Your task to perform on an android device: Open ESPN.com Image 0: 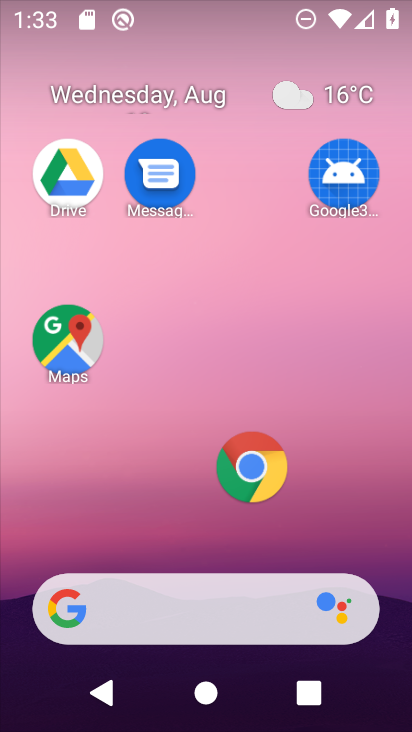
Step 0: click (199, 596)
Your task to perform on an android device: Open ESPN.com Image 1: 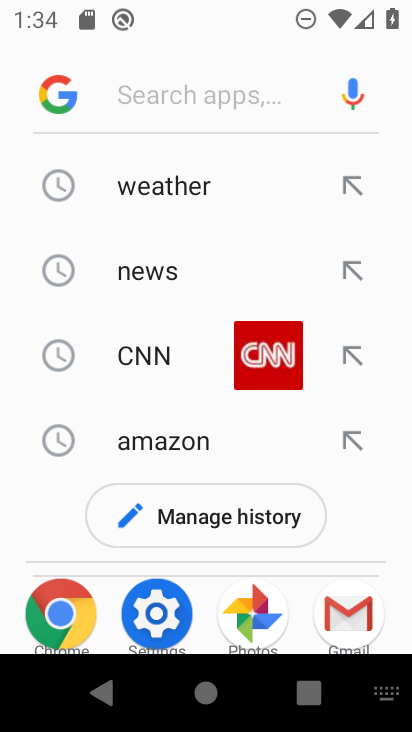
Step 1: click (81, 591)
Your task to perform on an android device: Open ESPN.com Image 2: 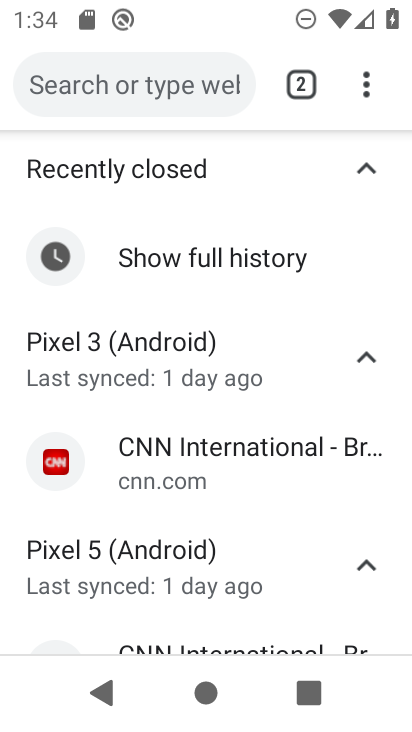
Step 2: drag from (108, 612) to (179, 302)
Your task to perform on an android device: Open ESPN.com Image 3: 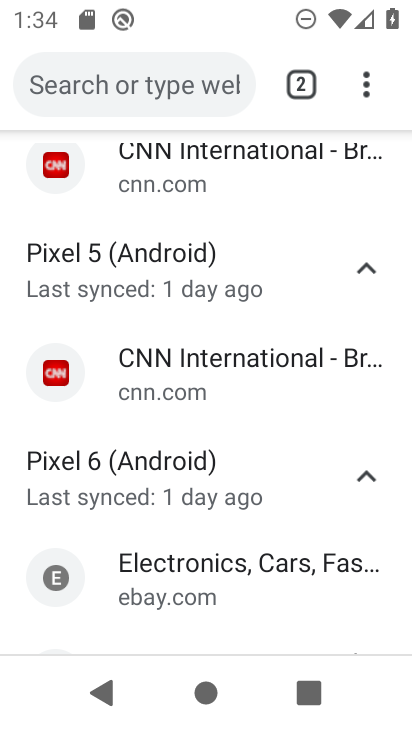
Step 3: click (182, 97)
Your task to perform on an android device: Open ESPN.com Image 4: 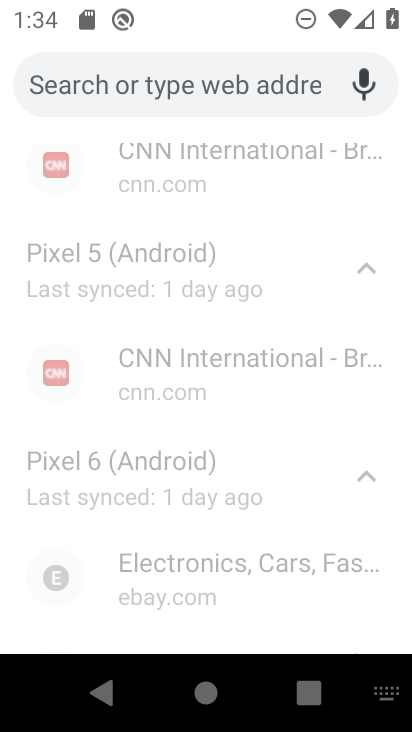
Step 4: type "espn"
Your task to perform on an android device: Open ESPN.com Image 5: 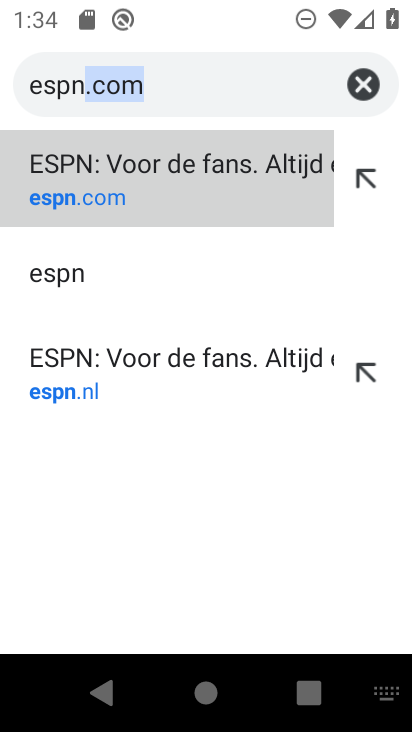
Step 5: click (148, 166)
Your task to perform on an android device: Open ESPN.com Image 6: 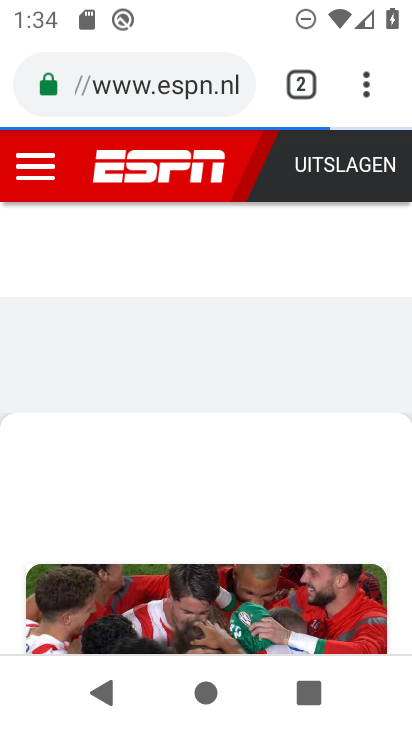
Step 6: task complete